Your task to perform on an android device: change the clock display to analog Image 0: 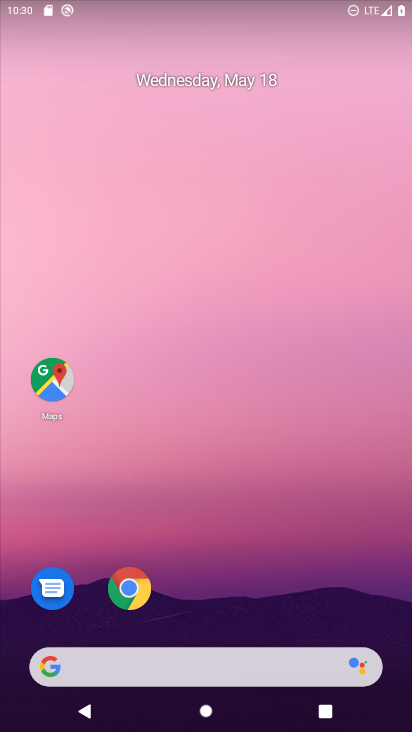
Step 0: drag from (344, 635) to (295, 41)
Your task to perform on an android device: change the clock display to analog Image 1: 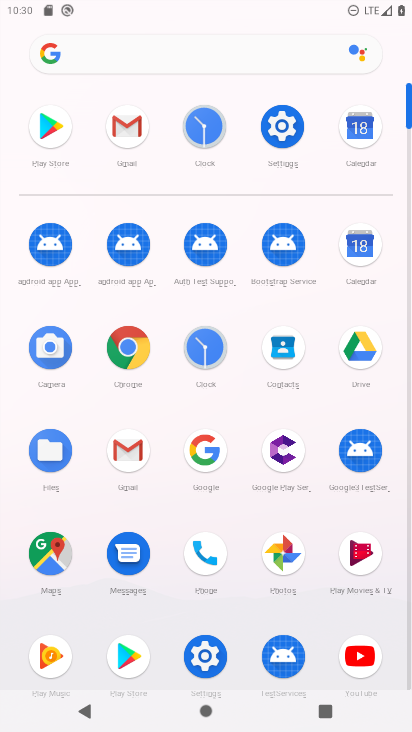
Step 1: click (204, 125)
Your task to perform on an android device: change the clock display to analog Image 2: 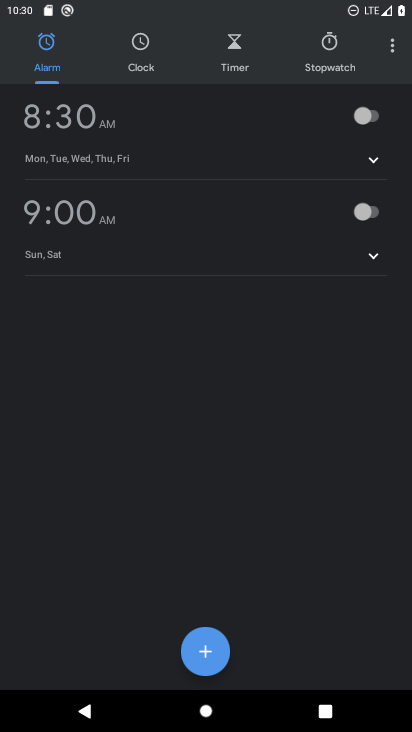
Step 2: click (392, 52)
Your task to perform on an android device: change the clock display to analog Image 3: 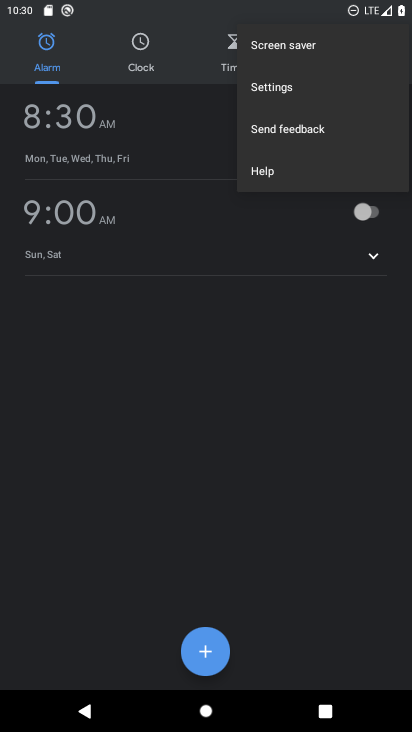
Step 3: click (286, 95)
Your task to perform on an android device: change the clock display to analog Image 4: 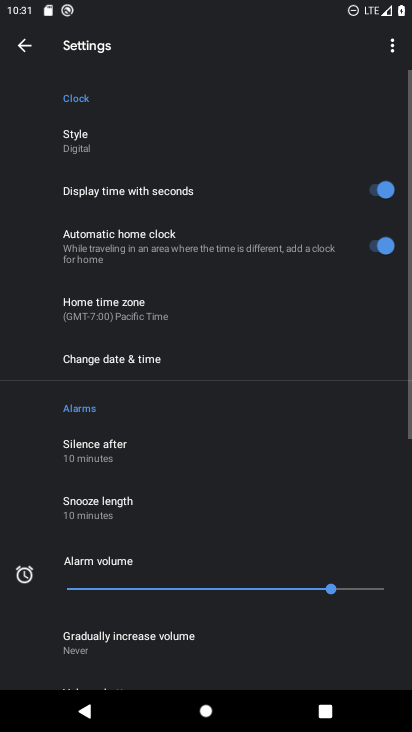
Step 4: click (82, 152)
Your task to perform on an android device: change the clock display to analog Image 5: 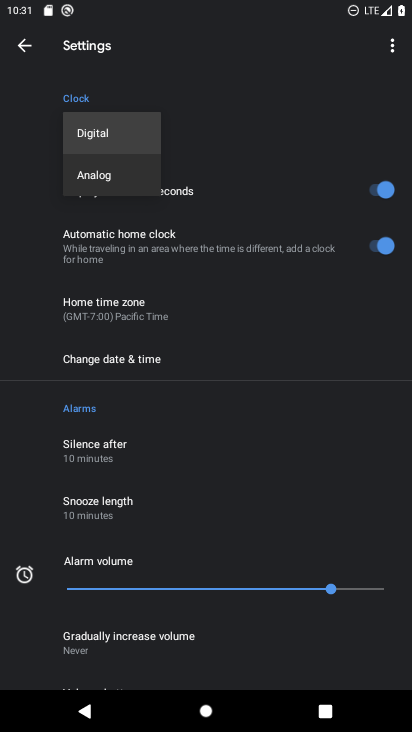
Step 5: click (102, 181)
Your task to perform on an android device: change the clock display to analog Image 6: 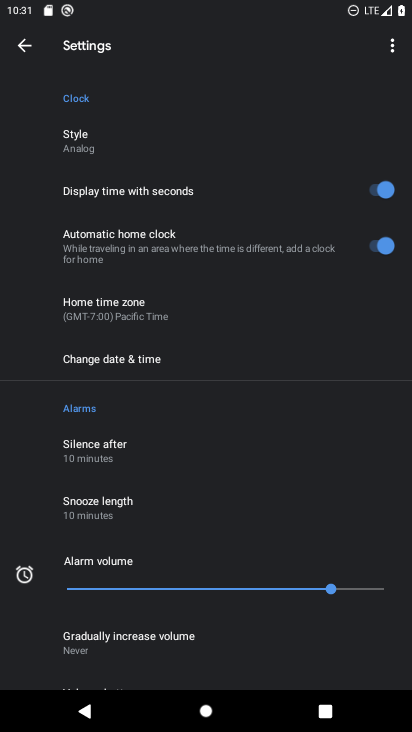
Step 6: task complete